Your task to perform on an android device: toggle airplane mode Image 0: 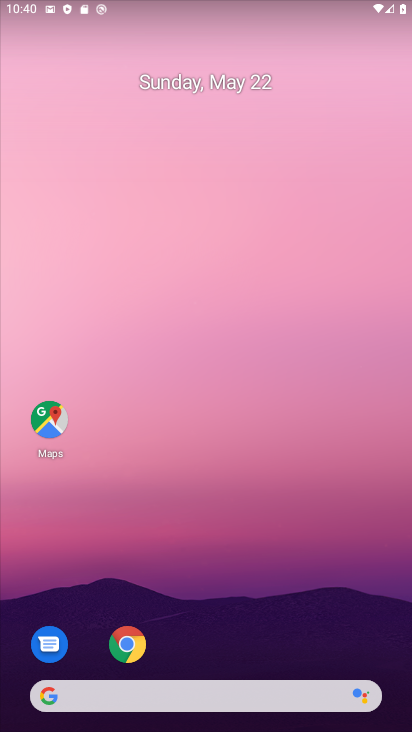
Step 0: press home button
Your task to perform on an android device: toggle airplane mode Image 1: 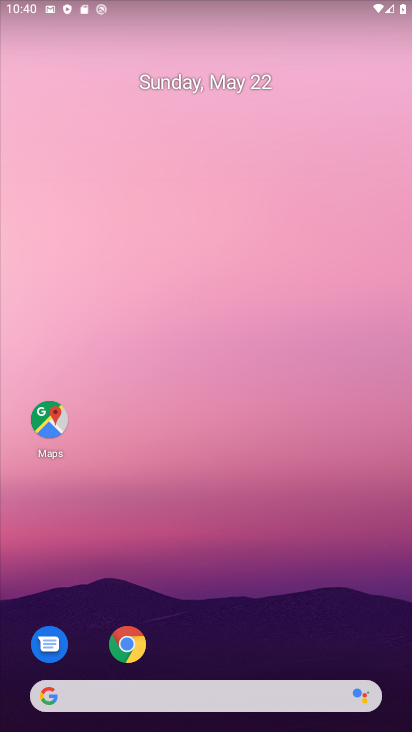
Step 1: drag from (223, 648) to (245, 49)
Your task to perform on an android device: toggle airplane mode Image 2: 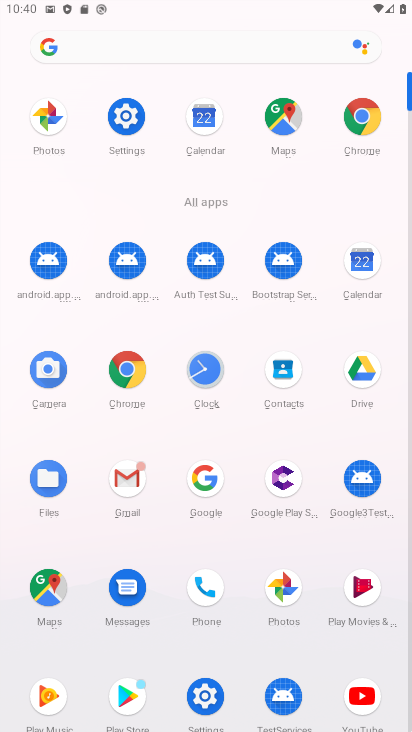
Step 2: drag from (246, 3) to (230, 506)
Your task to perform on an android device: toggle airplane mode Image 3: 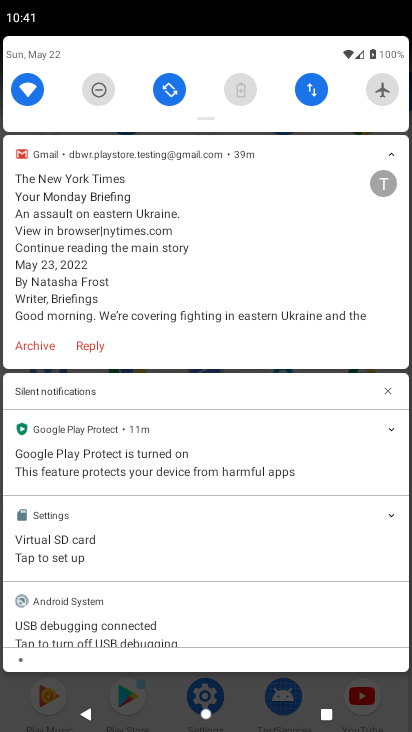
Step 3: click (381, 82)
Your task to perform on an android device: toggle airplane mode Image 4: 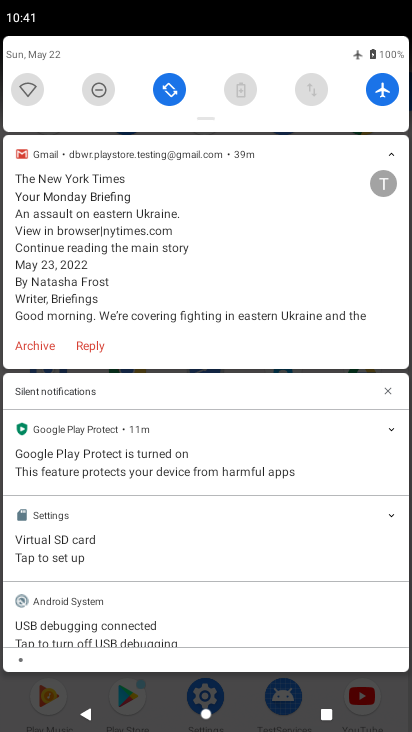
Step 4: task complete